Your task to perform on an android device: turn on improve location accuracy Image 0: 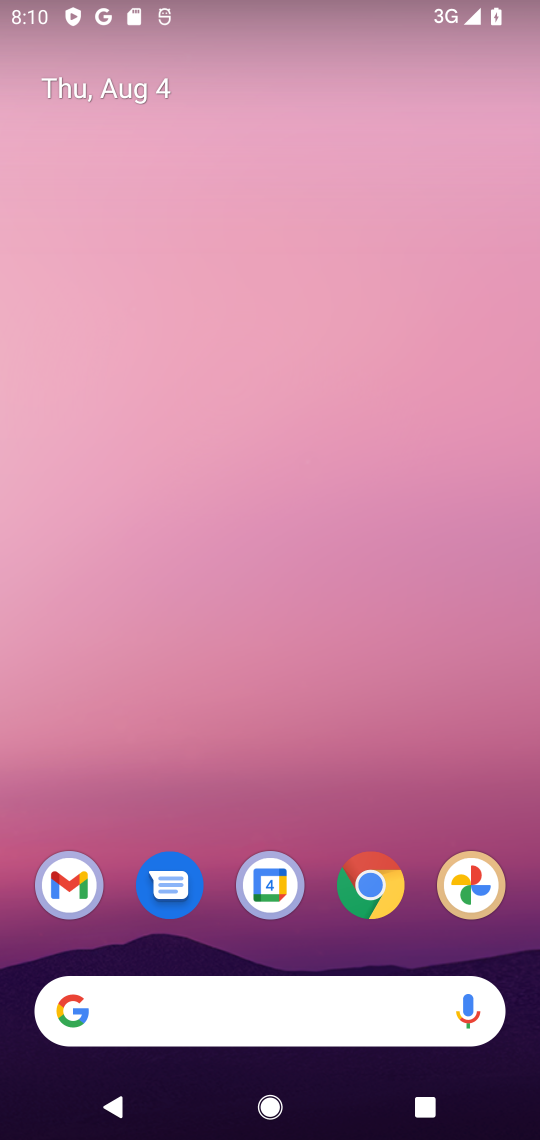
Step 0: press home button
Your task to perform on an android device: turn on improve location accuracy Image 1: 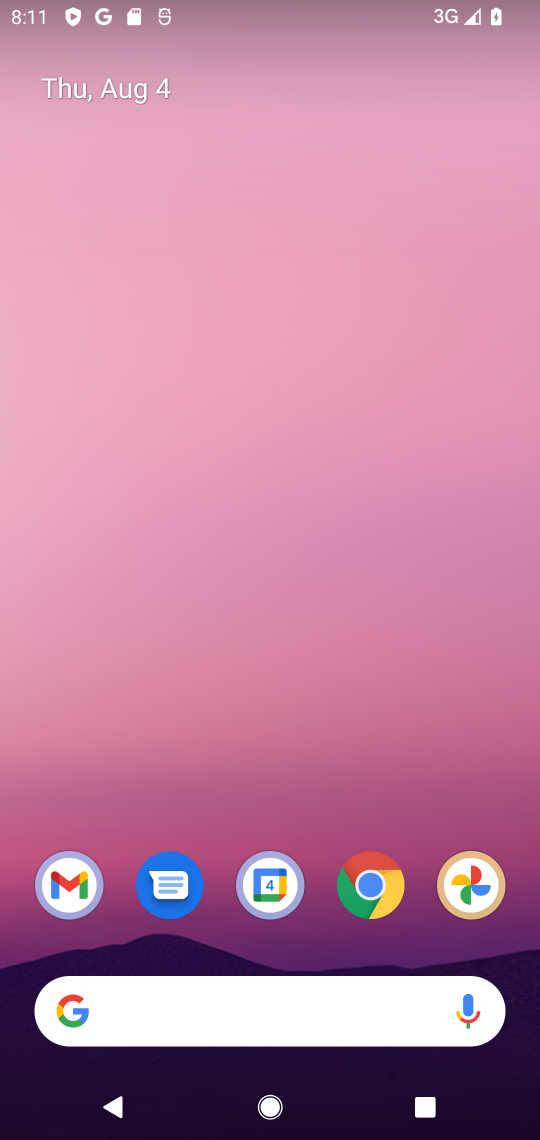
Step 1: drag from (313, 940) to (290, 187)
Your task to perform on an android device: turn on improve location accuracy Image 2: 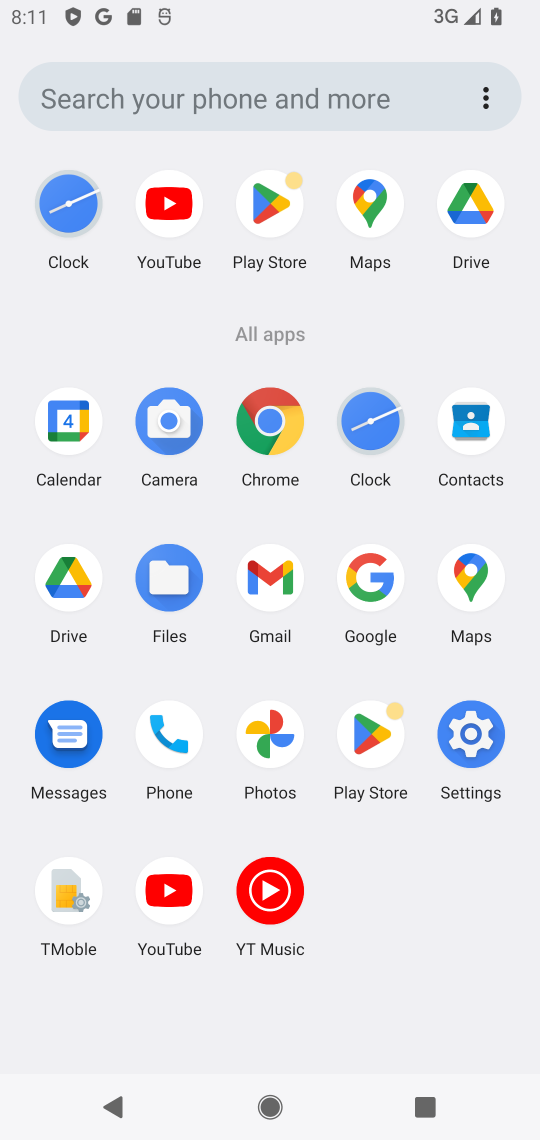
Step 2: click (468, 722)
Your task to perform on an android device: turn on improve location accuracy Image 3: 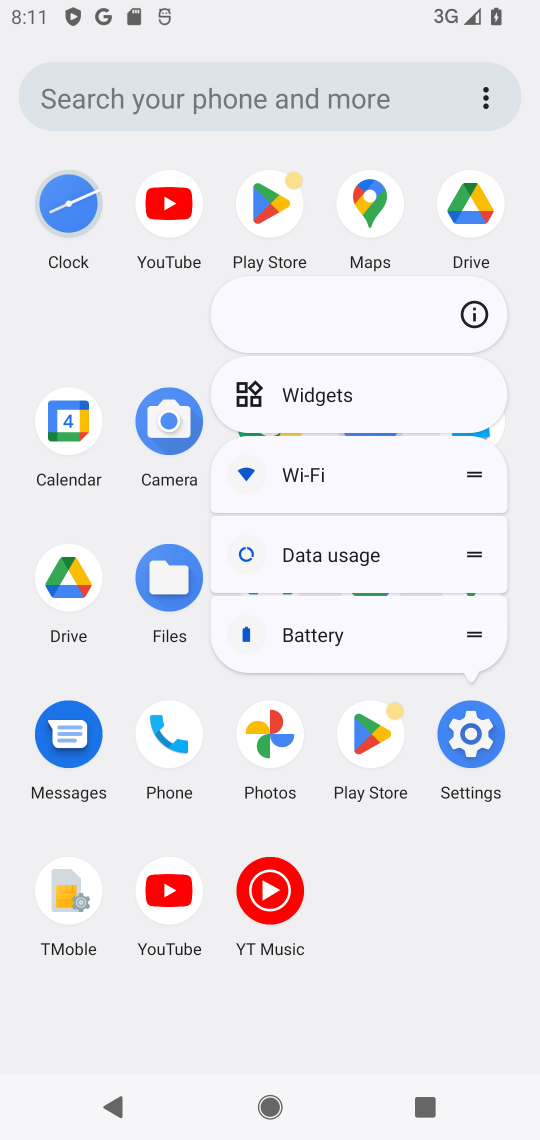
Step 3: click (468, 722)
Your task to perform on an android device: turn on improve location accuracy Image 4: 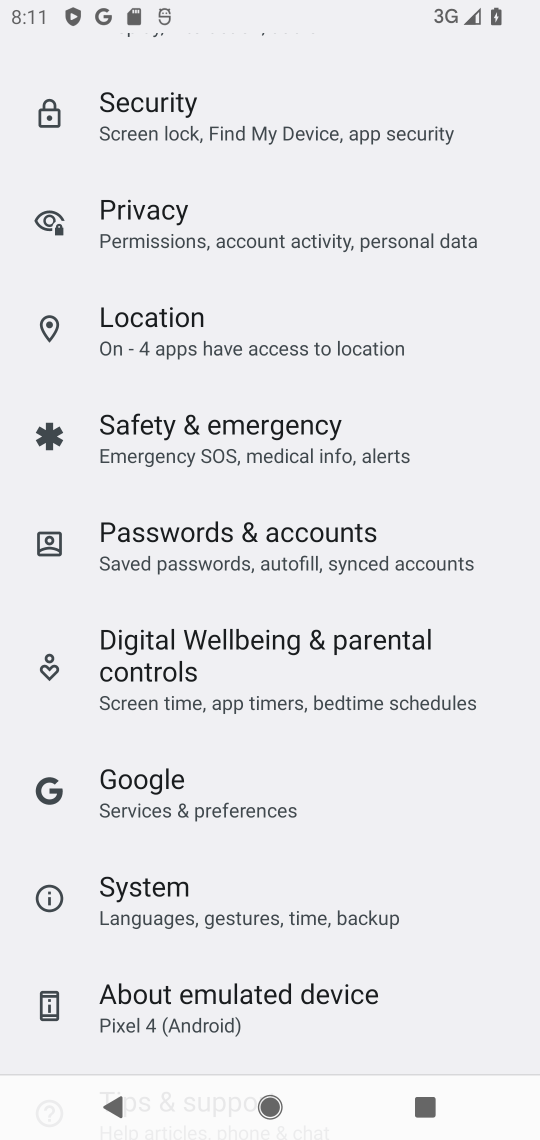
Step 4: click (220, 318)
Your task to perform on an android device: turn on improve location accuracy Image 5: 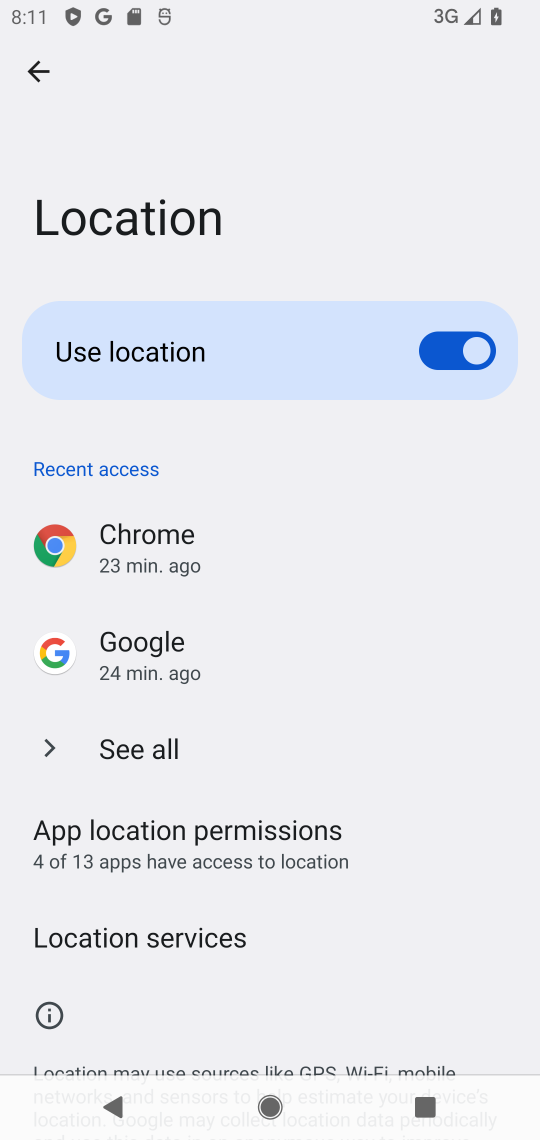
Step 5: drag from (203, 977) to (222, 484)
Your task to perform on an android device: turn on improve location accuracy Image 6: 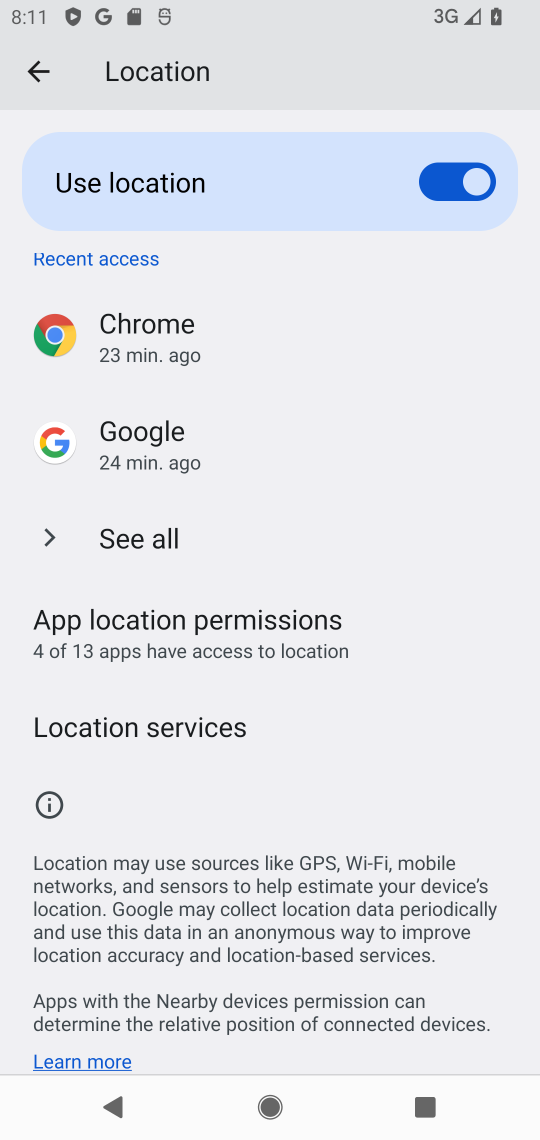
Step 6: click (213, 715)
Your task to perform on an android device: turn on improve location accuracy Image 7: 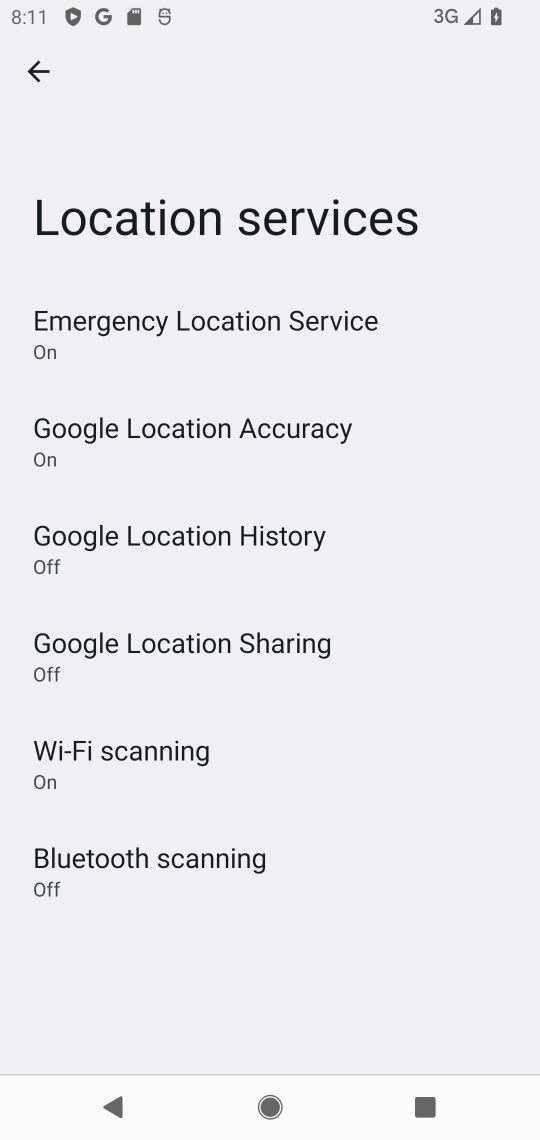
Step 7: click (200, 448)
Your task to perform on an android device: turn on improve location accuracy Image 8: 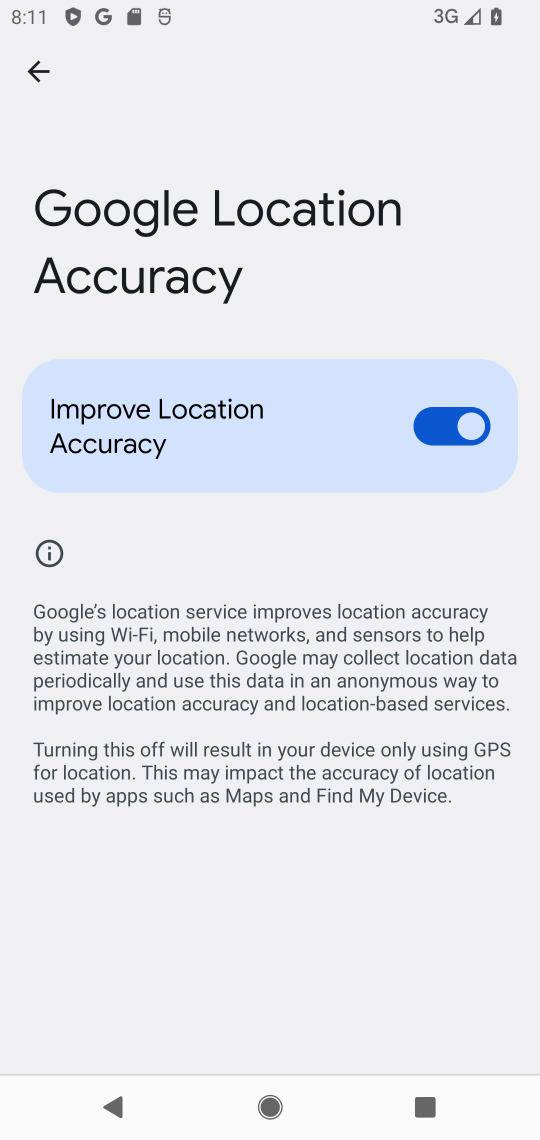
Step 8: task complete